Your task to perform on an android device: Search for the best 100% cotton t-shirts Image 0: 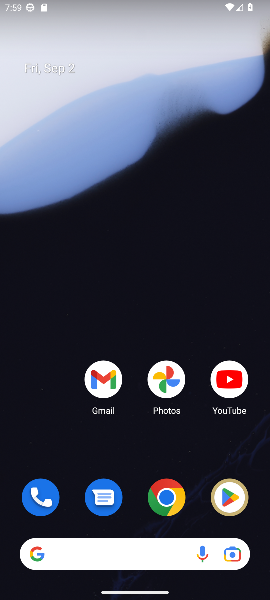
Step 0: click (133, 34)
Your task to perform on an android device: Search for the best 100% cotton t-shirts Image 1: 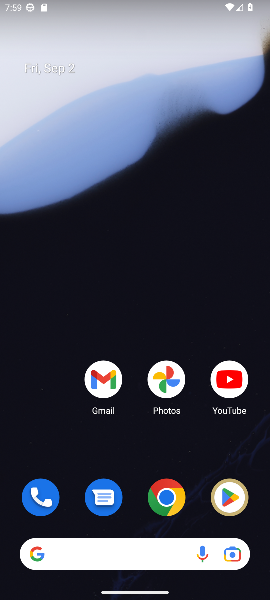
Step 1: drag from (131, 525) to (131, 0)
Your task to perform on an android device: Search for the best 100% cotton t-shirts Image 2: 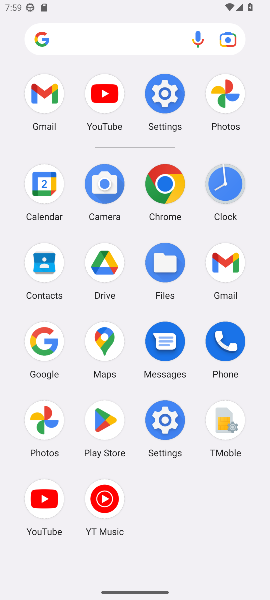
Step 2: click (39, 341)
Your task to perform on an android device: Search for the best 100% cotton t-shirts Image 3: 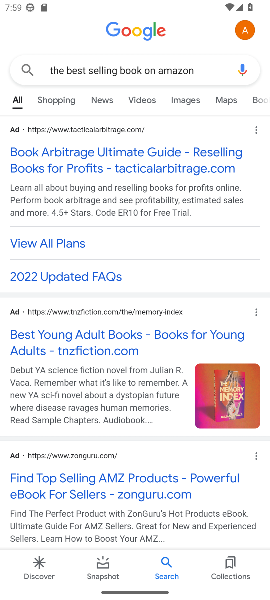
Step 3: click (204, 71)
Your task to perform on an android device: Search for the best 100% cotton t-shirts Image 4: 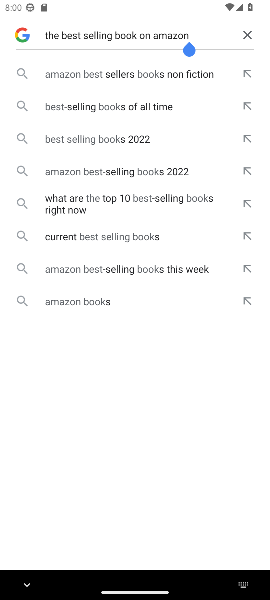
Step 4: click (248, 31)
Your task to perform on an android device: Search for the best 100% cotton t-shirts Image 5: 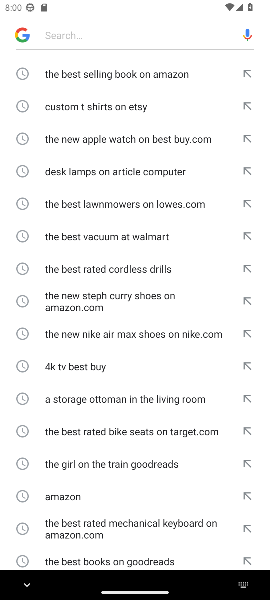
Step 5: type "the best 100% cotton t-shirts"
Your task to perform on an android device: Search for the best 100% cotton t-shirts Image 6: 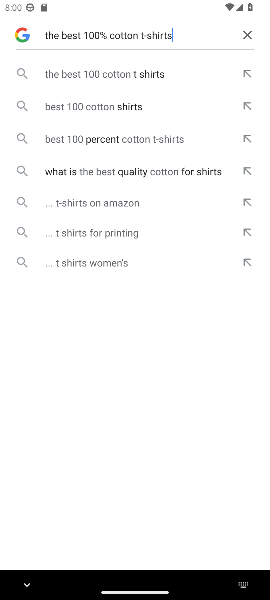
Step 6: click (148, 73)
Your task to perform on an android device: Search for the best 100% cotton t-shirts Image 7: 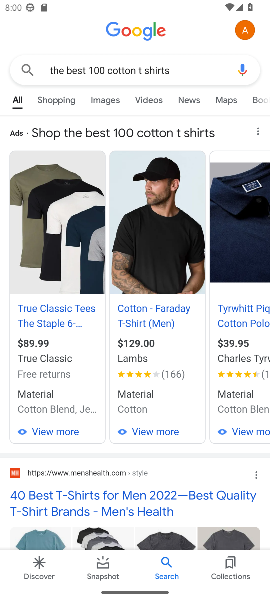
Step 7: task complete